Your task to perform on an android device: Open calendar and show me the first week of next month Image 0: 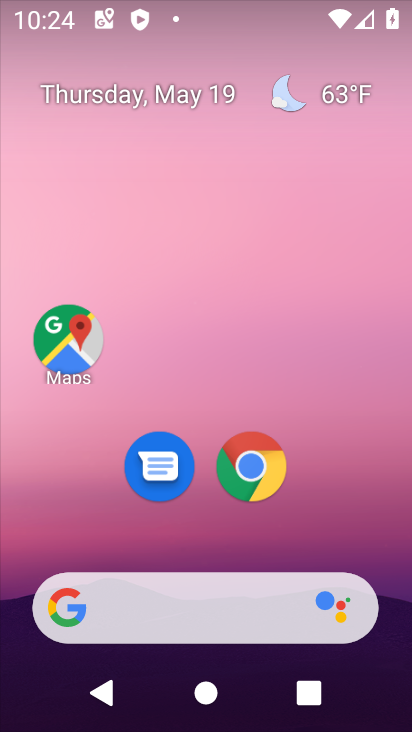
Step 0: drag from (396, 608) to (226, 70)
Your task to perform on an android device: Open calendar and show me the first week of next month Image 1: 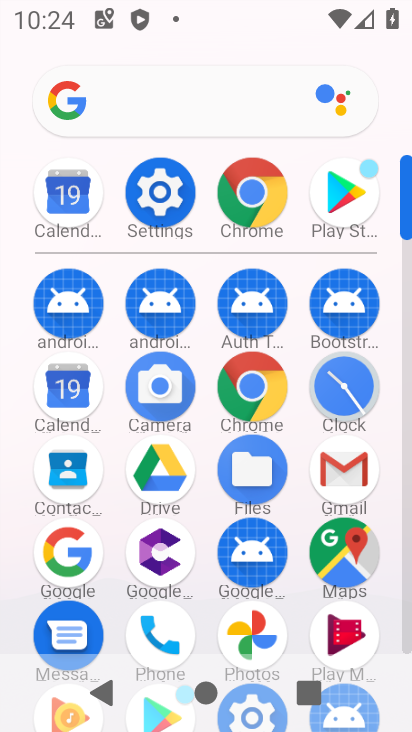
Step 1: click (61, 392)
Your task to perform on an android device: Open calendar and show me the first week of next month Image 2: 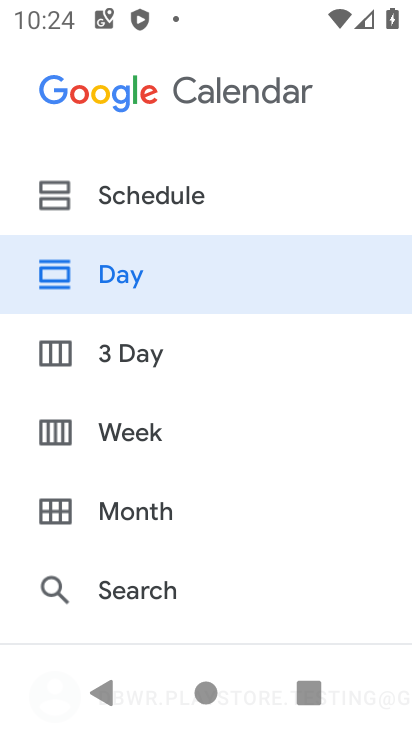
Step 2: press back button
Your task to perform on an android device: Open calendar and show me the first week of next month Image 3: 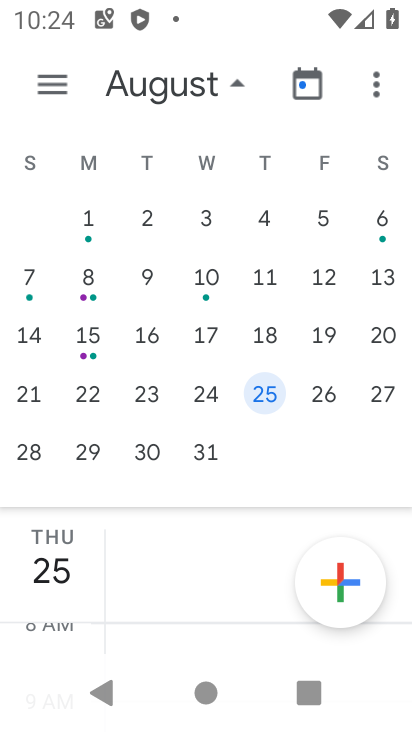
Step 3: drag from (331, 277) to (3, 264)
Your task to perform on an android device: Open calendar and show me the first week of next month Image 4: 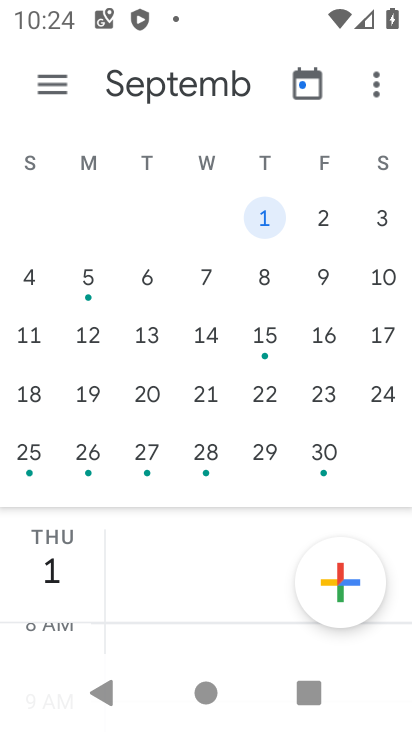
Step 4: click (85, 287)
Your task to perform on an android device: Open calendar and show me the first week of next month Image 5: 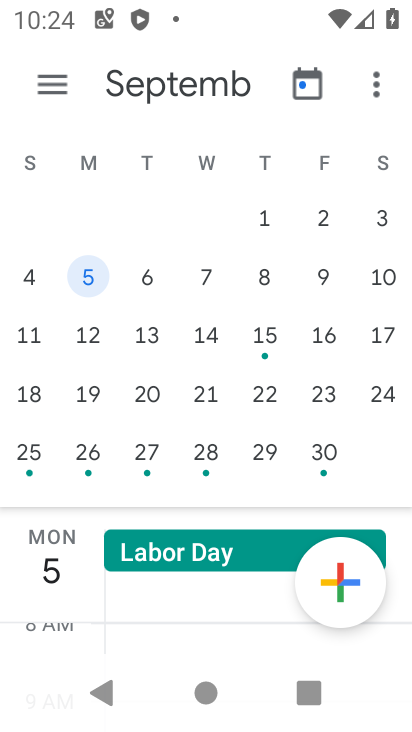
Step 5: task complete